Your task to perform on an android device: change alarm snooze length Image 0: 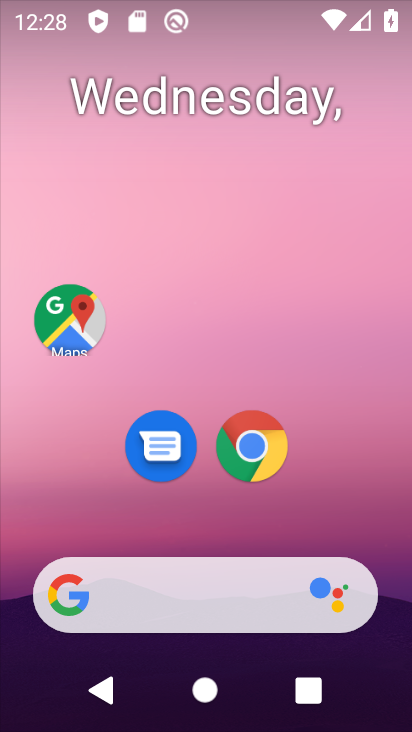
Step 0: drag from (316, 685) to (213, 144)
Your task to perform on an android device: change alarm snooze length Image 1: 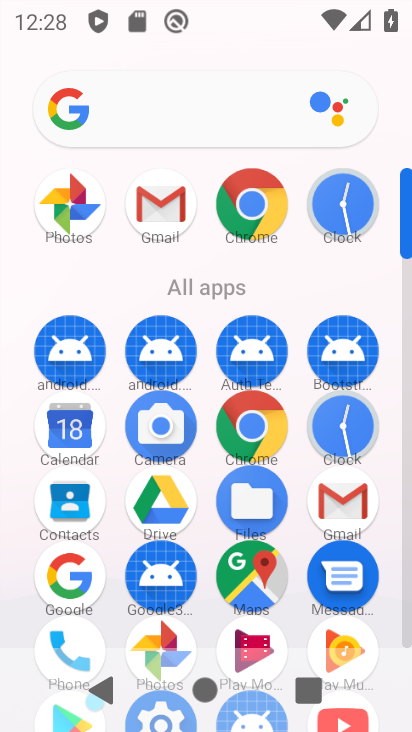
Step 1: click (354, 409)
Your task to perform on an android device: change alarm snooze length Image 2: 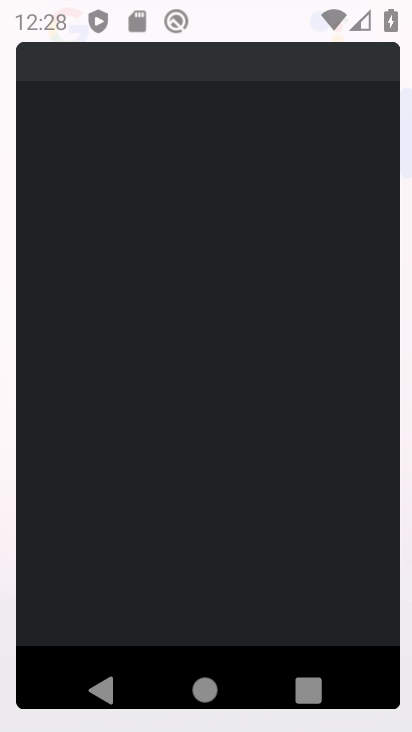
Step 2: click (348, 410)
Your task to perform on an android device: change alarm snooze length Image 3: 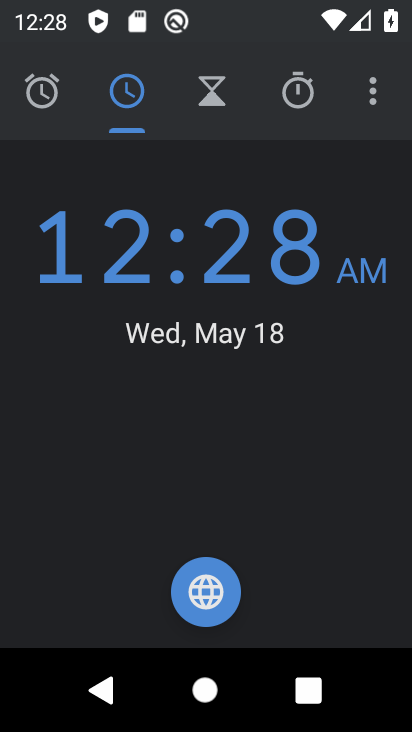
Step 3: click (348, 411)
Your task to perform on an android device: change alarm snooze length Image 4: 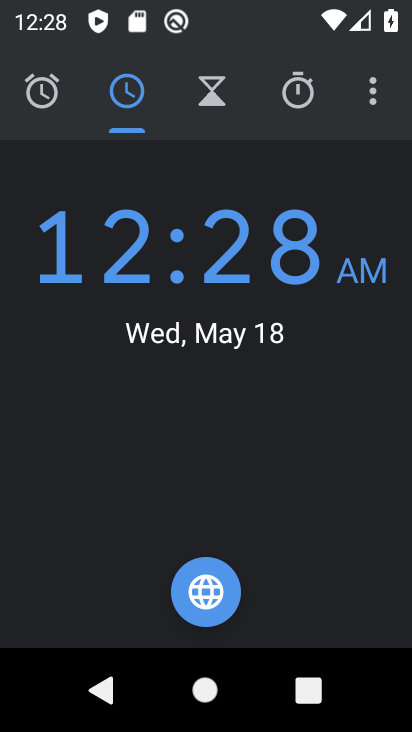
Step 4: click (348, 411)
Your task to perform on an android device: change alarm snooze length Image 5: 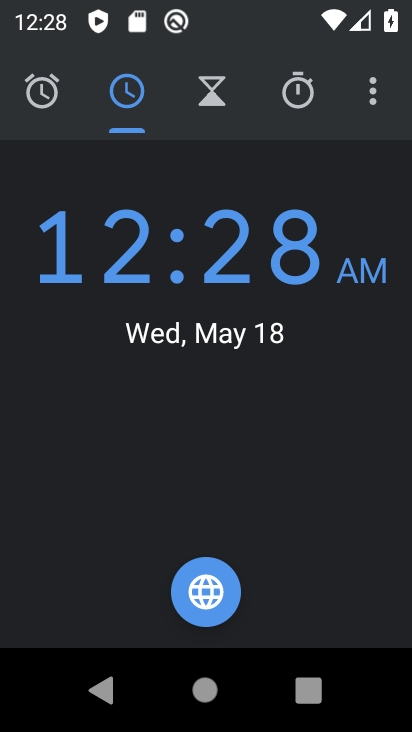
Step 5: click (384, 86)
Your task to perform on an android device: change alarm snooze length Image 6: 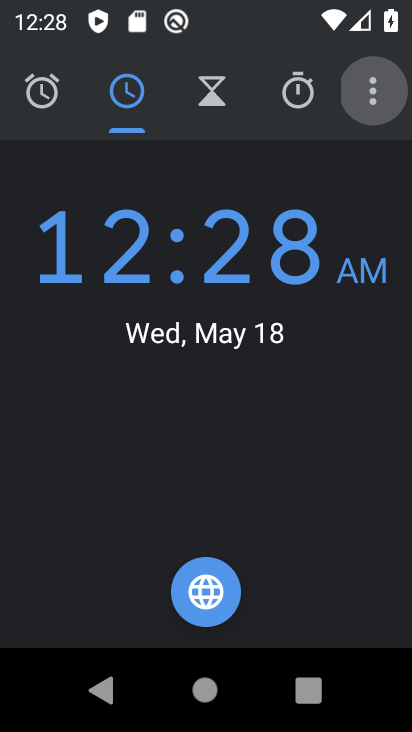
Step 6: click (384, 86)
Your task to perform on an android device: change alarm snooze length Image 7: 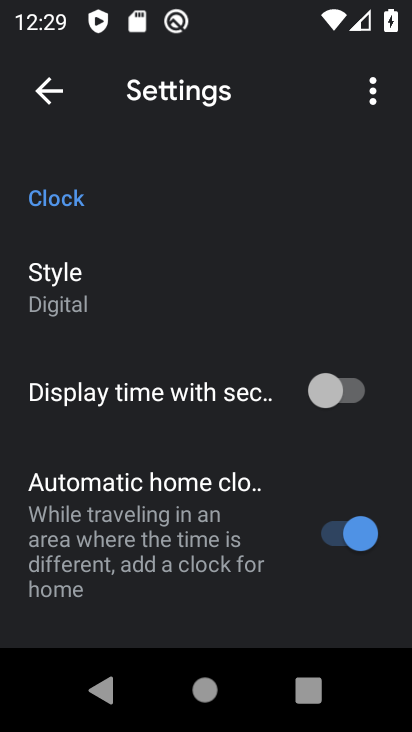
Step 7: drag from (163, 472) to (165, 212)
Your task to perform on an android device: change alarm snooze length Image 8: 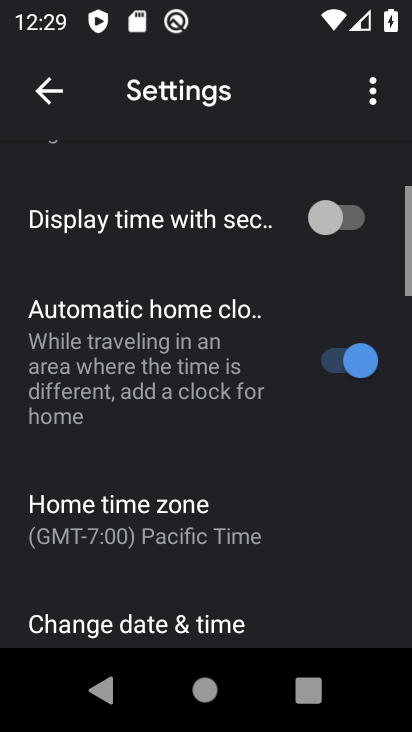
Step 8: drag from (195, 375) to (168, 187)
Your task to perform on an android device: change alarm snooze length Image 9: 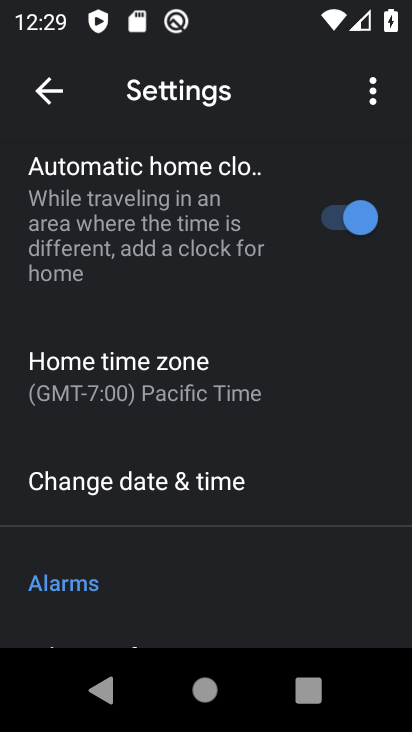
Step 9: drag from (195, 452) to (180, 199)
Your task to perform on an android device: change alarm snooze length Image 10: 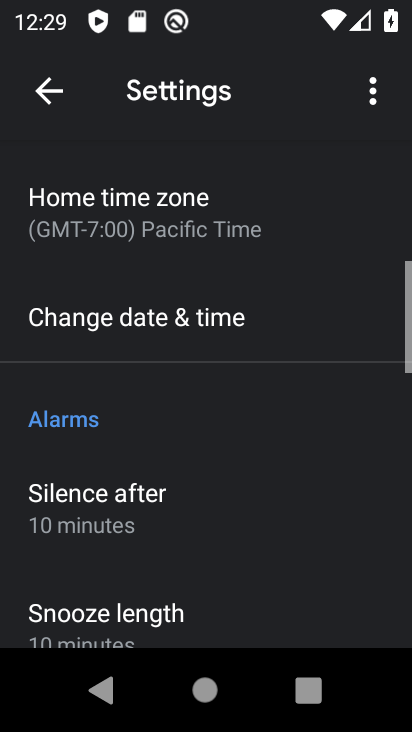
Step 10: drag from (228, 356) to (247, 91)
Your task to perform on an android device: change alarm snooze length Image 11: 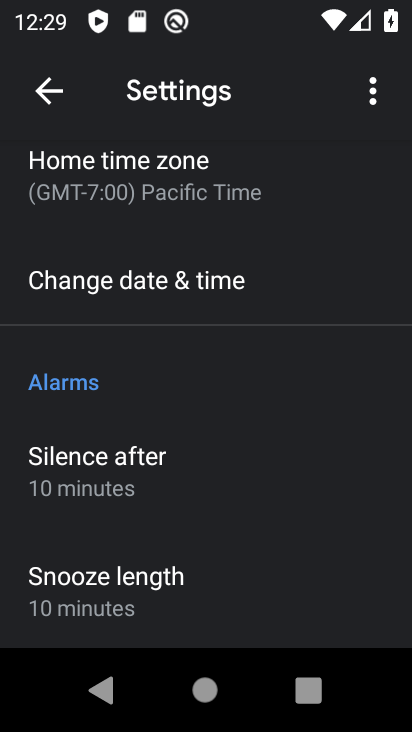
Step 11: click (103, 577)
Your task to perform on an android device: change alarm snooze length Image 12: 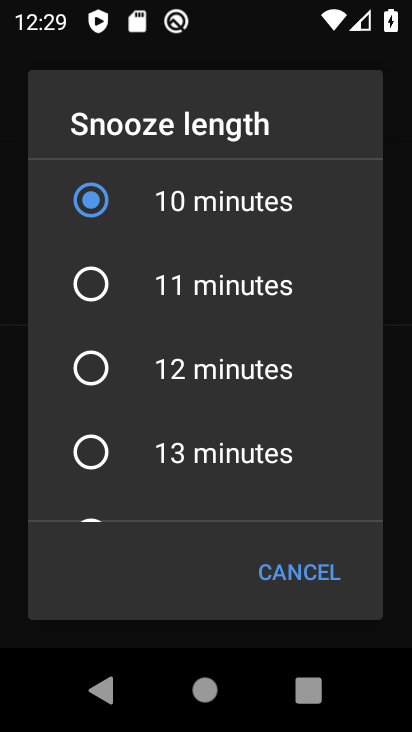
Step 12: click (89, 362)
Your task to perform on an android device: change alarm snooze length Image 13: 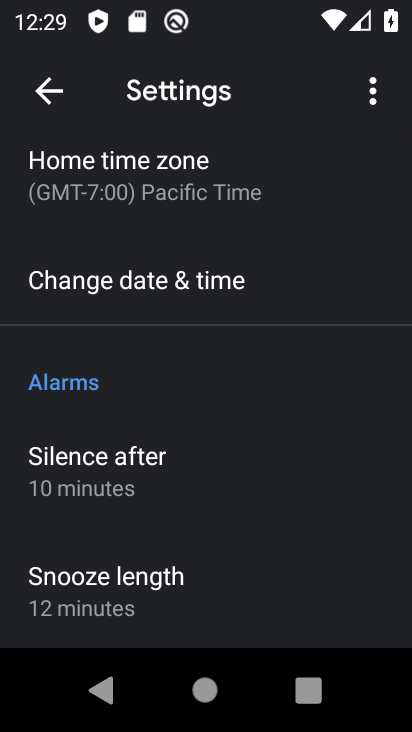
Step 13: task complete